Your task to perform on an android device: Open Yahoo.com Image 0: 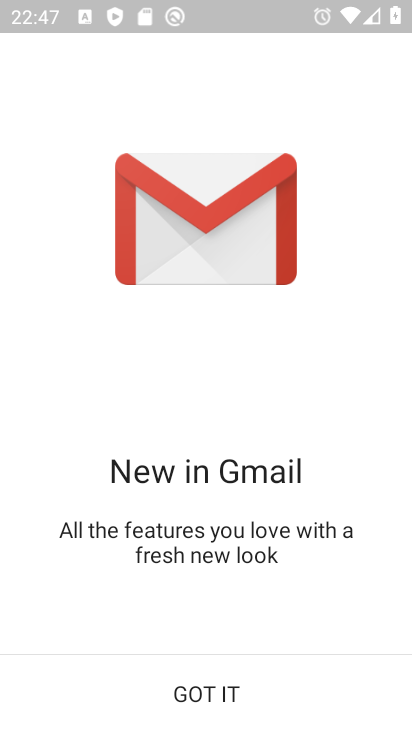
Step 0: press home button
Your task to perform on an android device: Open Yahoo.com Image 1: 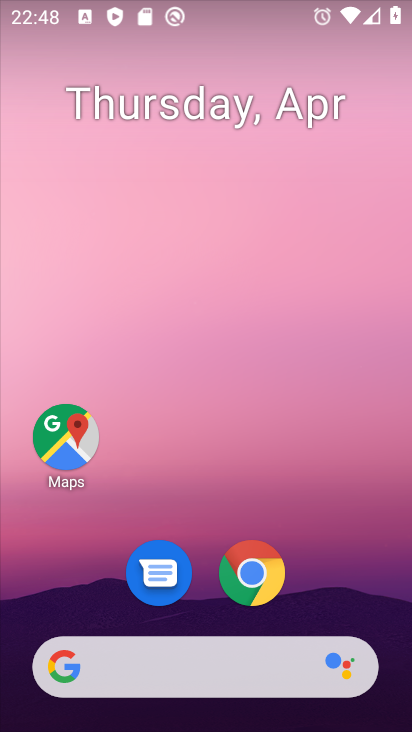
Step 1: click (252, 570)
Your task to perform on an android device: Open Yahoo.com Image 2: 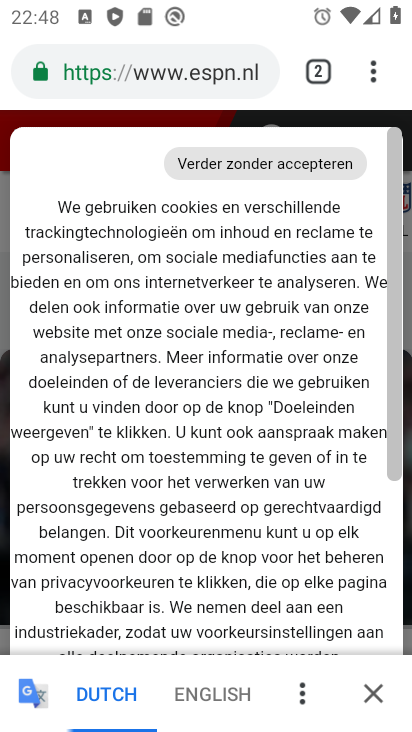
Step 2: click (326, 63)
Your task to perform on an android device: Open Yahoo.com Image 3: 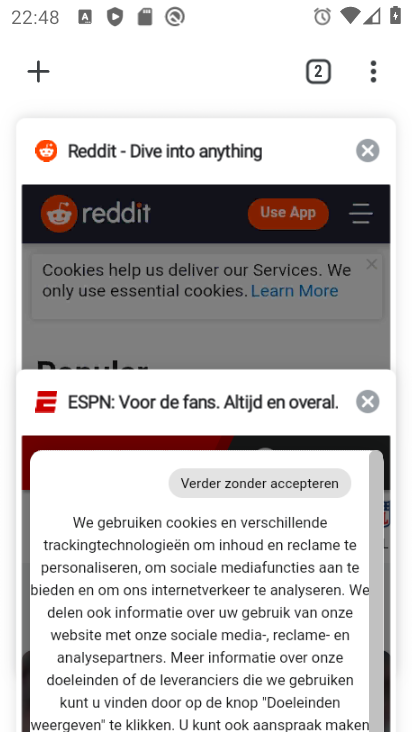
Step 3: click (51, 70)
Your task to perform on an android device: Open Yahoo.com Image 4: 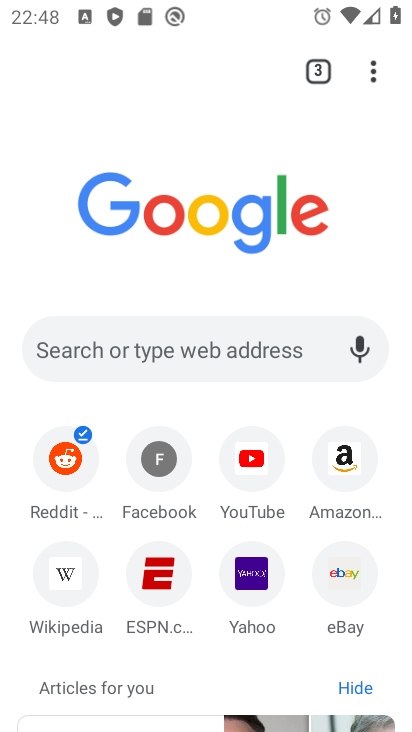
Step 4: click (242, 563)
Your task to perform on an android device: Open Yahoo.com Image 5: 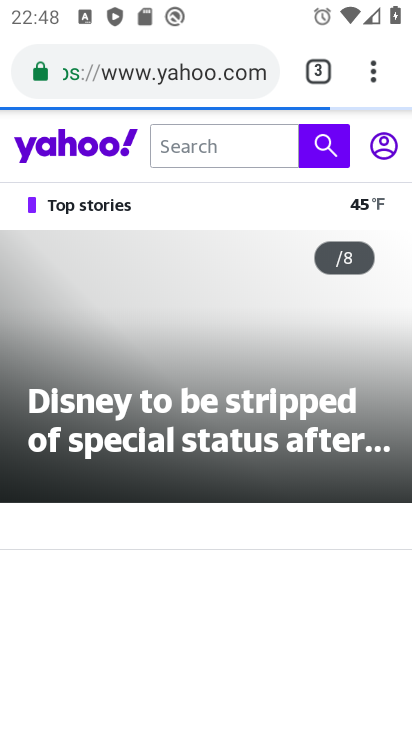
Step 5: task complete